Your task to perform on an android device: open the mobile data screen to see how much data has been used Image 0: 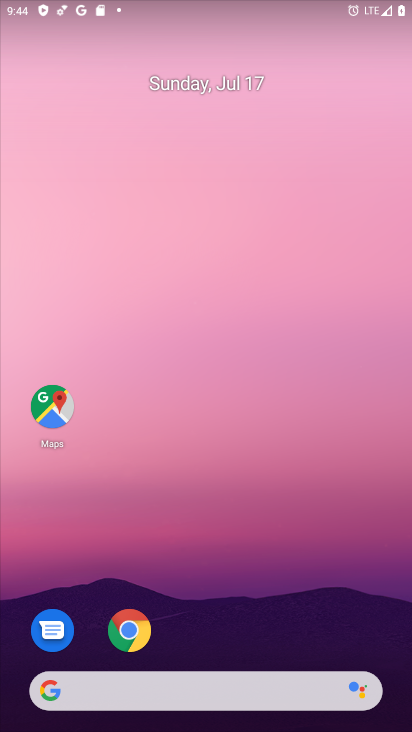
Step 0: drag from (225, 641) to (259, 145)
Your task to perform on an android device: open the mobile data screen to see how much data has been used Image 1: 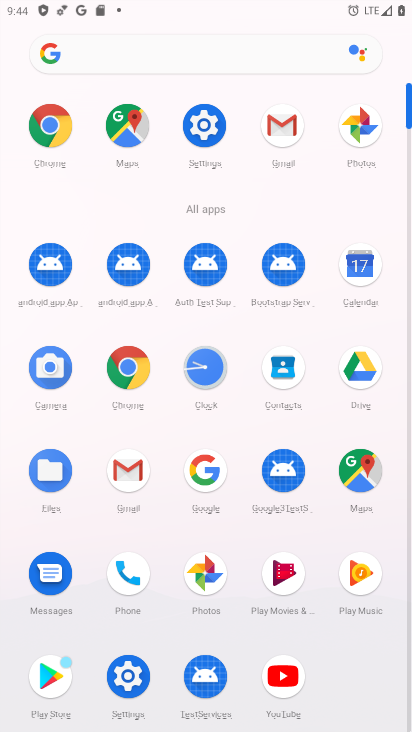
Step 1: click (201, 128)
Your task to perform on an android device: open the mobile data screen to see how much data has been used Image 2: 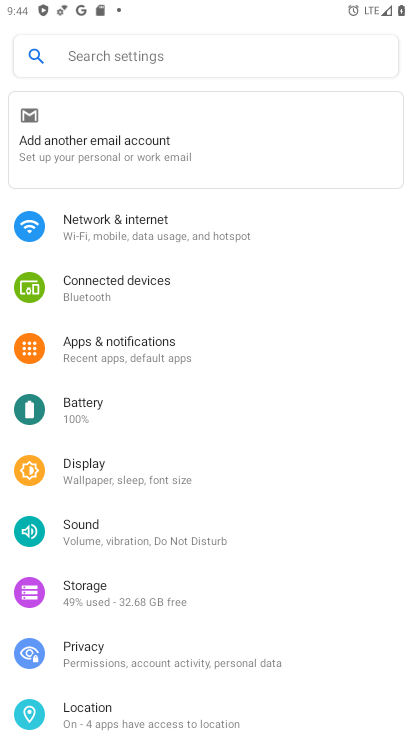
Step 2: click (145, 230)
Your task to perform on an android device: open the mobile data screen to see how much data has been used Image 3: 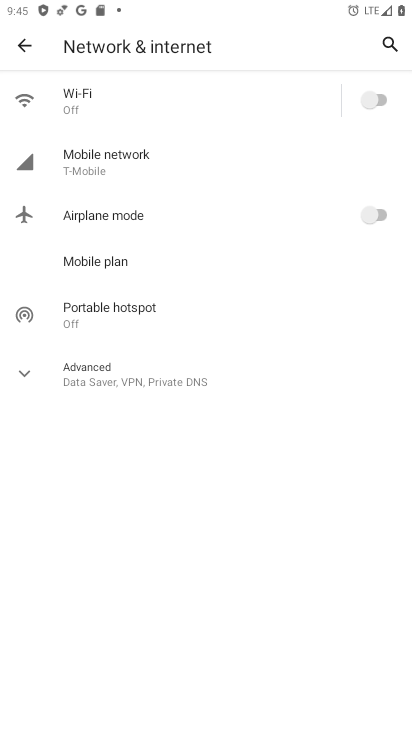
Step 3: click (118, 164)
Your task to perform on an android device: open the mobile data screen to see how much data has been used Image 4: 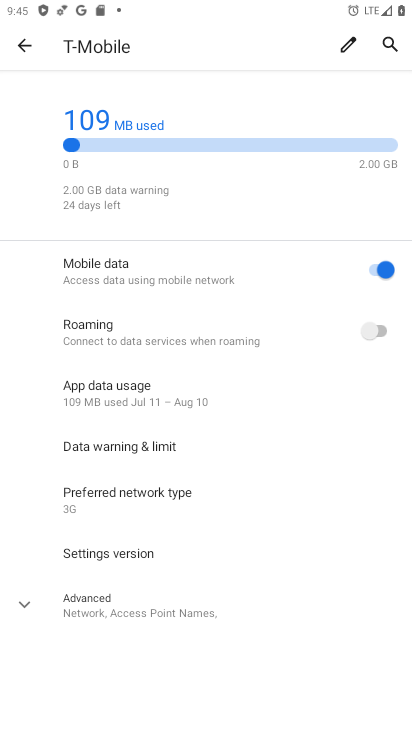
Step 4: click (141, 384)
Your task to perform on an android device: open the mobile data screen to see how much data has been used Image 5: 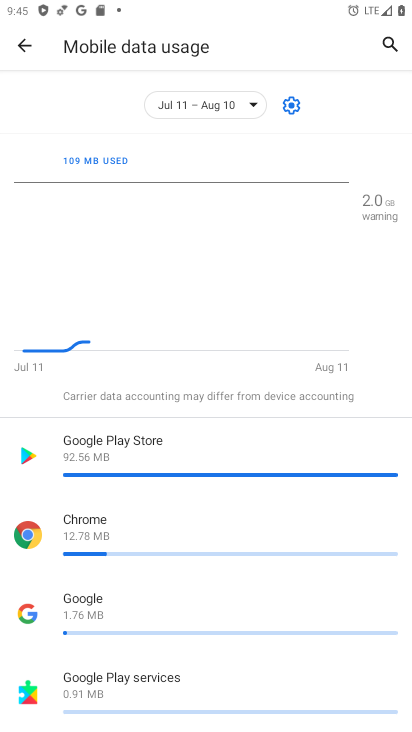
Step 5: task complete